Your task to perform on an android device: Show me productivity apps on the Play Store Image 0: 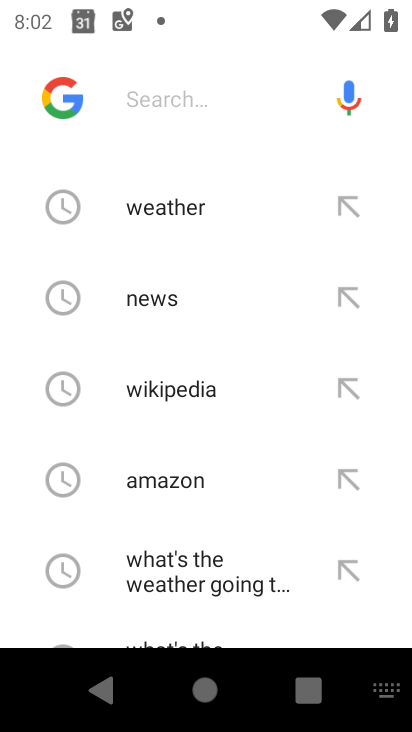
Step 0: press home button
Your task to perform on an android device: Show me productivity apps on the Play Store Image 1: 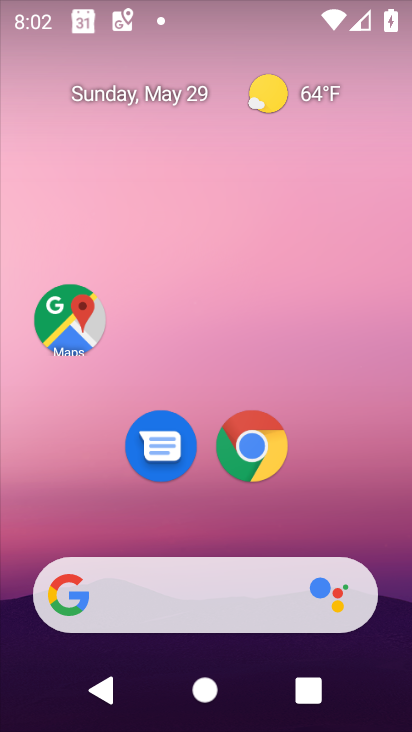
Step 1: drag from (201, 516) to (200, 128)
Your task to perform on an android device: Show me productivity apps on the Play Store Image 2: 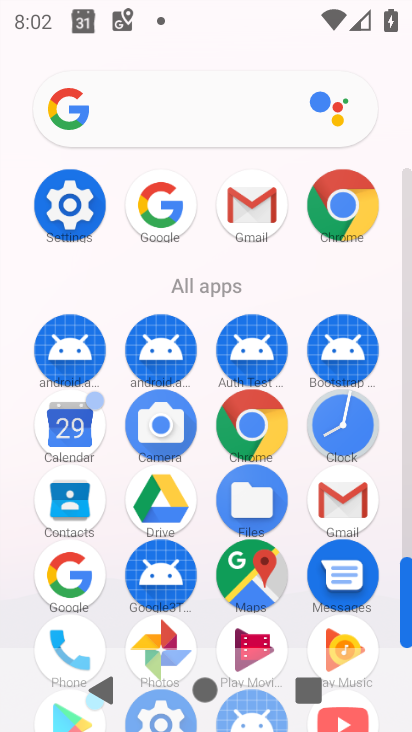
Step 2: drag from (216, 607) to (302, 3)
Your task to perform on an android device: Show me productivity apps on the Play Store Image 3: 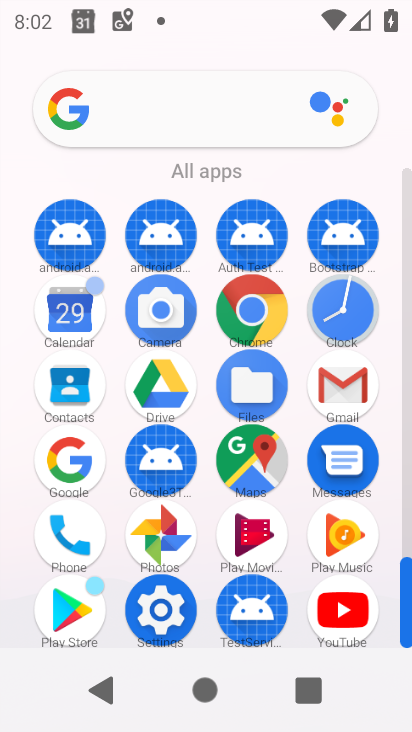
Step 3: click (58, 615)
Your task to perform on an android device: Show me productivity apps on the Play Store Image 4: 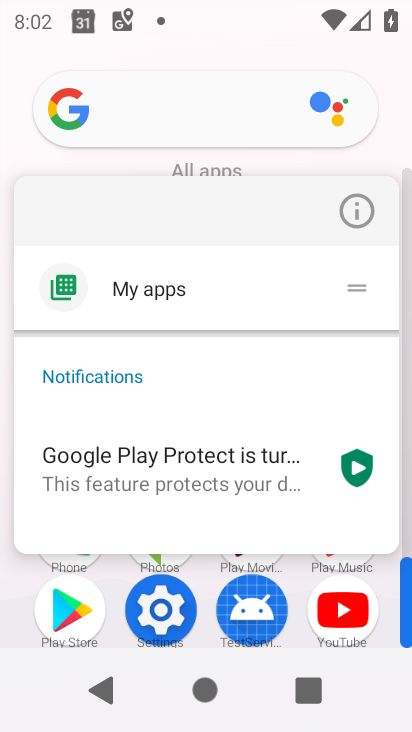
Step 4: click (349, 202)
Your task to perform on an android device: Show me productivity apps on the Play Store Image 5: 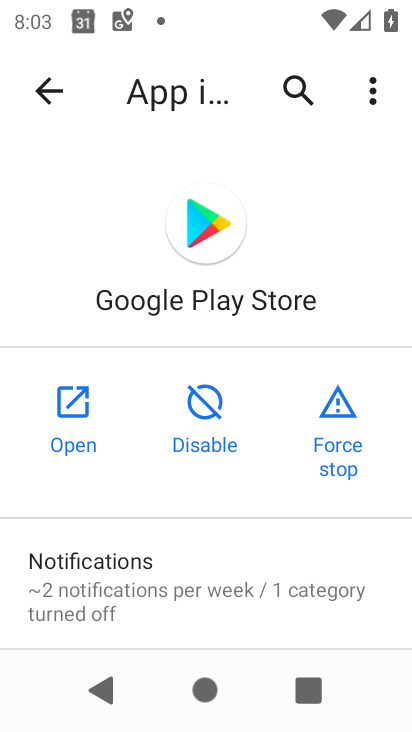
Step 5: click (75, 403)
Your task to perform on an android device: Show me productivity apps on the Play Store Image 6: 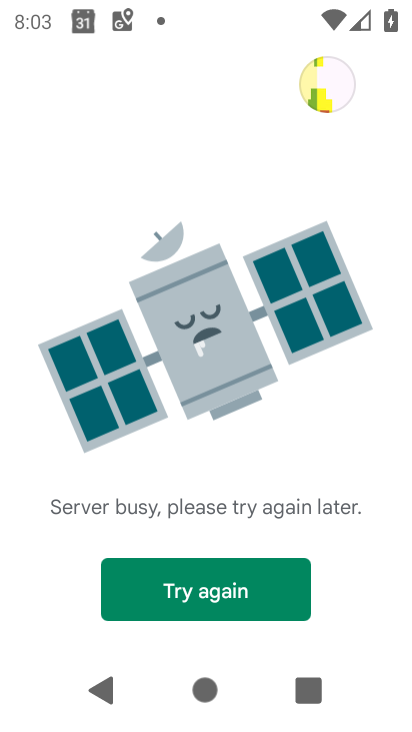
Step 6: click (205, 572)
Your task to perform on an android device: Show me productivity apps on the Play Store Image 7: 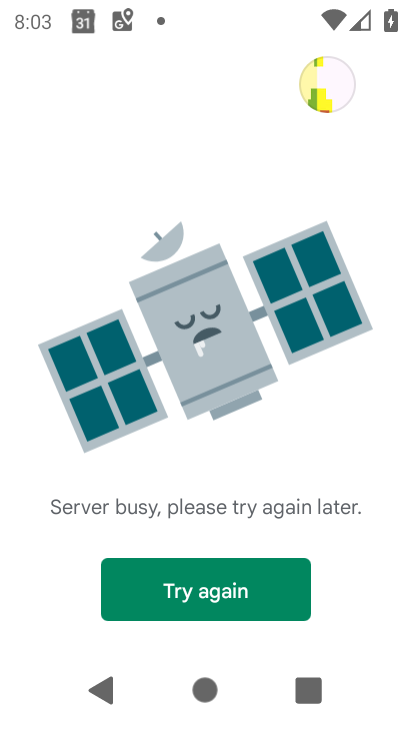
Step 7: click (113, 596)
Your task to perform on an android device: Show me productivity apps on the Play Store Image 8: 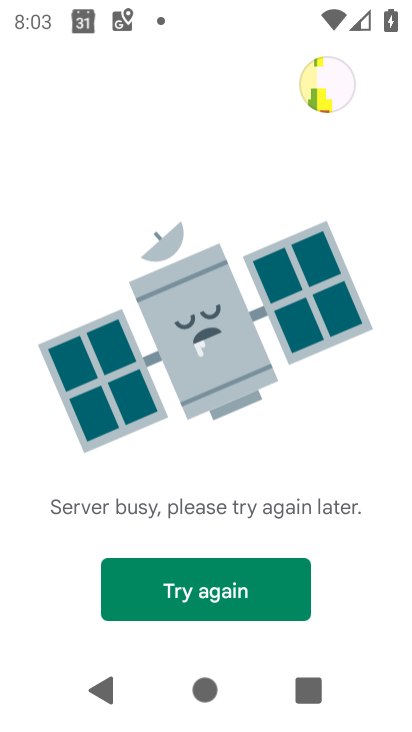
Step 8: click (209, 537)
Your task to perform on an android device: Show me productivity apps on the Play Store Image 9: 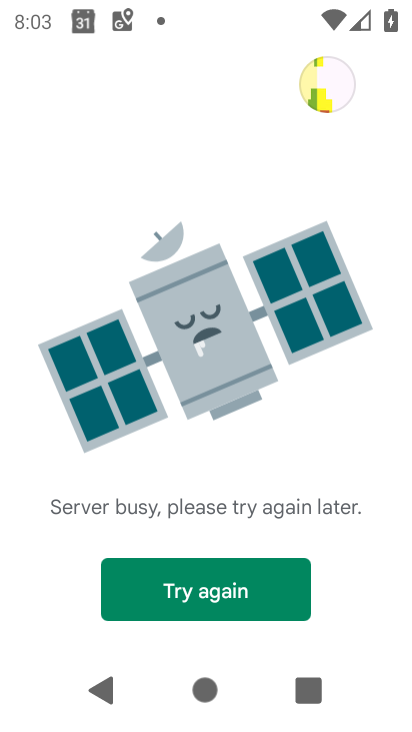
Step 9: click (223, 571)
Your task to perform on an android device: Show me productivity apps on the Play Store Image 10: 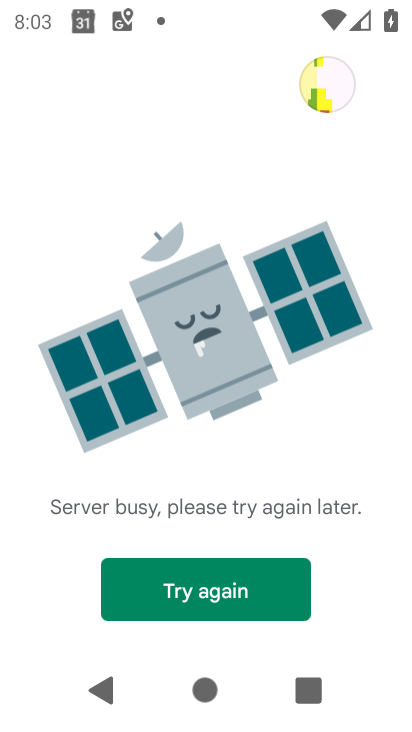
Step 10: task complete